Your task to perform on an android device: Open Reddit.com Image 0: 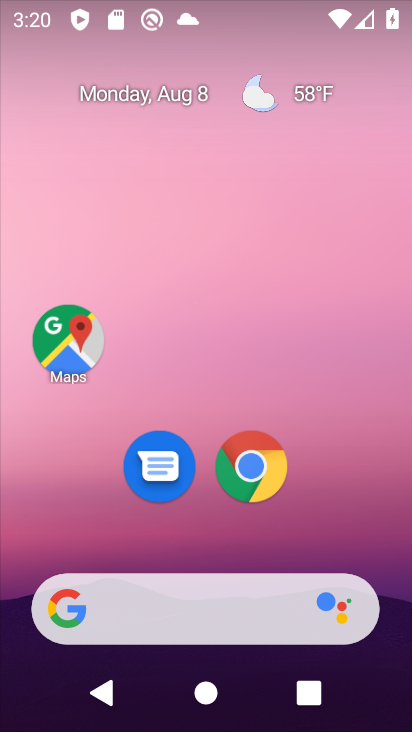
Step 0: drag from (248, 537) to (233, 236)
Your task to perform on an android device: Open Reddit.com Image 1: 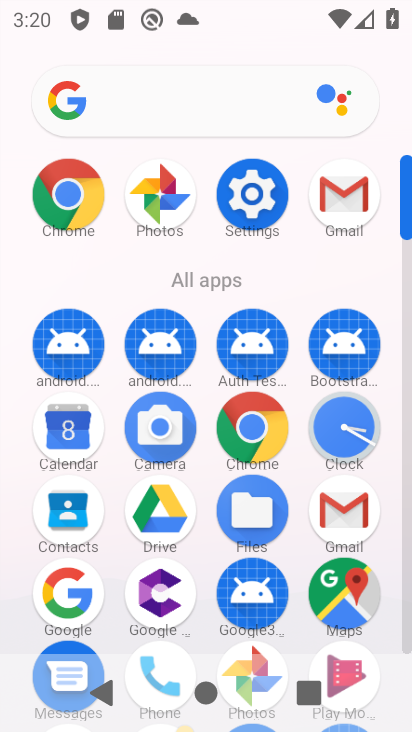
Step 1: click (64, 190)
Your task to perform on an android device: Open Reddit.com Image 2: 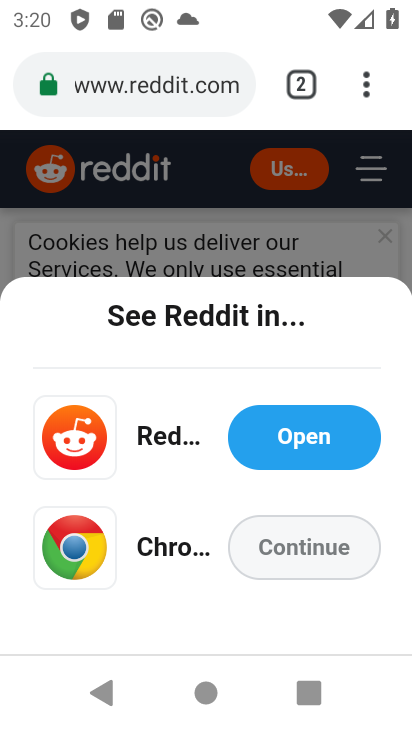
Step 2: click (184, 233)
Your task to perform on an android device: Open Reddit.com Image 3: 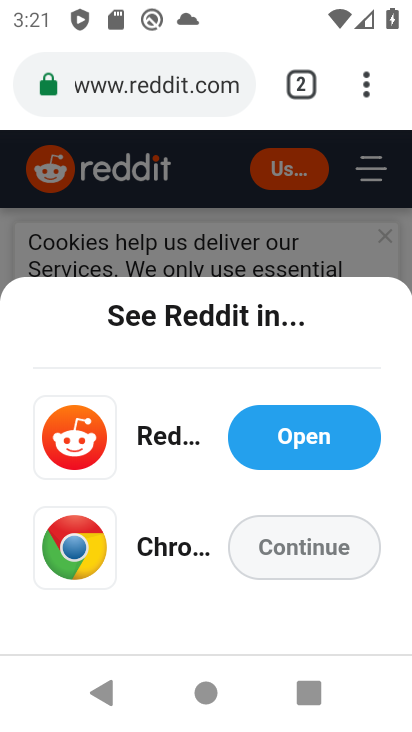
Step 3: task complete